Your task to perform on an android device: Open Wikipedia Image 0: 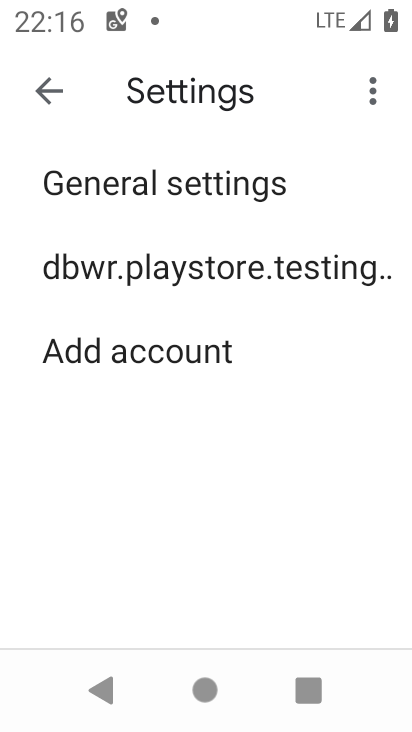
Step 0: press home button
Your task to perform on an android device: Open Wikipedia Image 1: 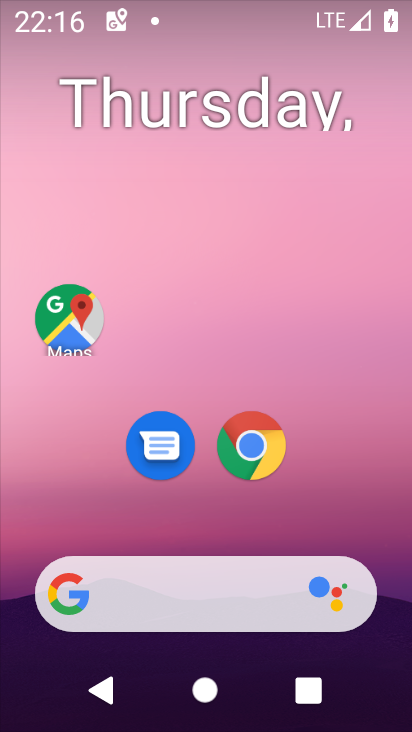
Step 1: drag from (218, 514) to (251, 204)
Your task to perform on an android device: Open Wikipedia Image 2: 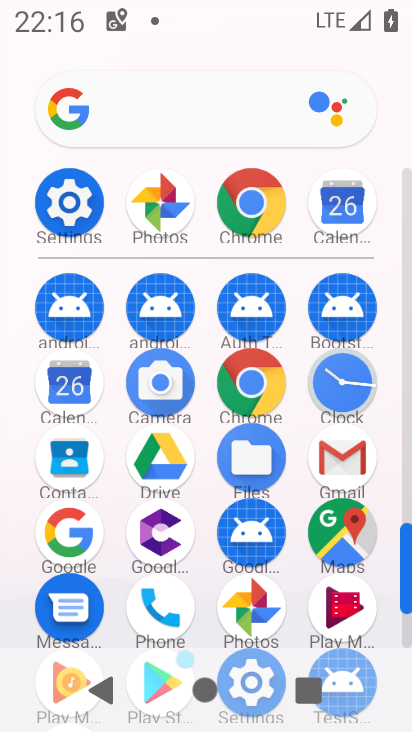
Step 2: drag from (204, 281) to (212, 172)
Your task to perform on an android device: Open Wikipedia Image 3: 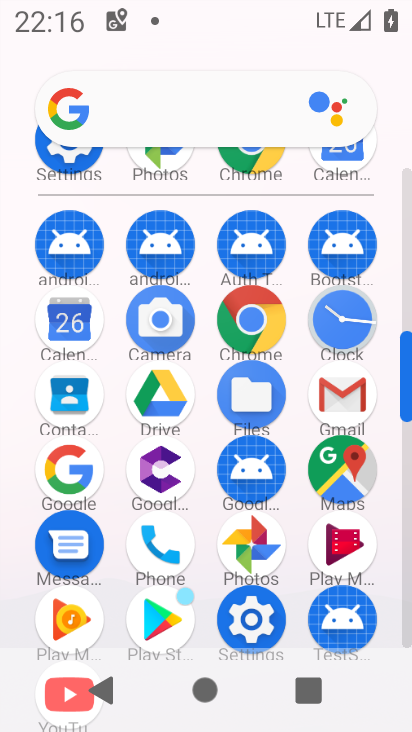
Step 3: click (247, 324)
Your task to perform on an android device: Open Wikipedia Image 4: 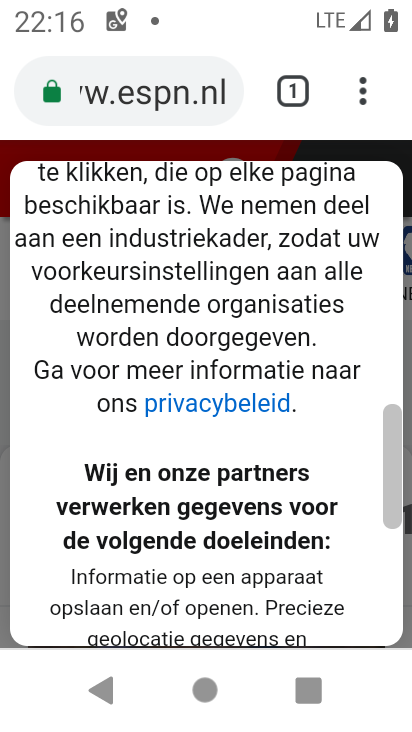
Step 4: click (287, 93)
Your task to perform on an android device: Open Wikipedia Image 5: 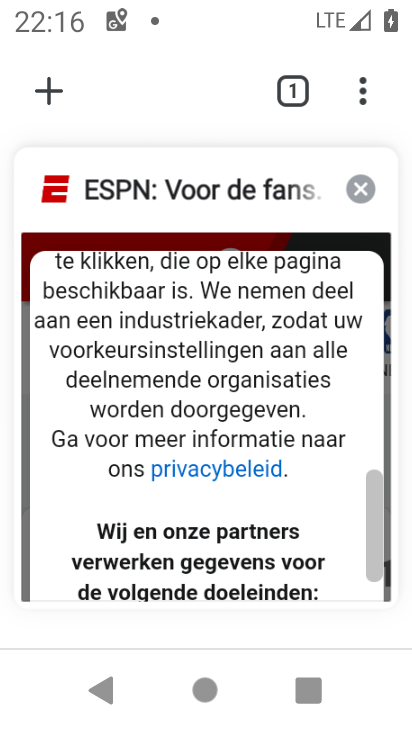
Step 5: click (46, 94)
Your task to perform on an android device: Open Wikipedia Image 6: 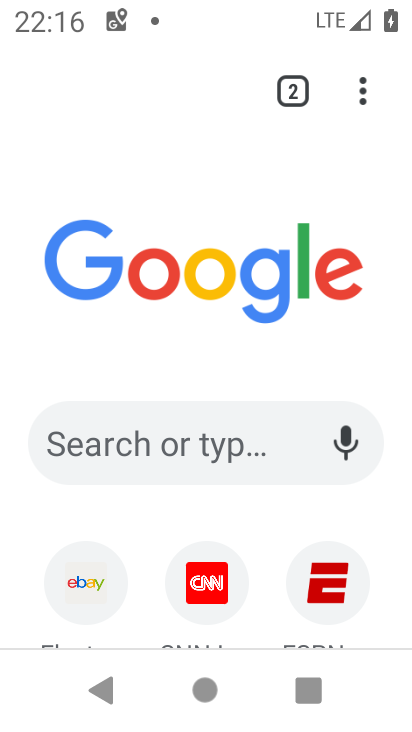
Step 6: click (193, 443)
Your task to perform on an android device: Open Wikipedia Image 7: 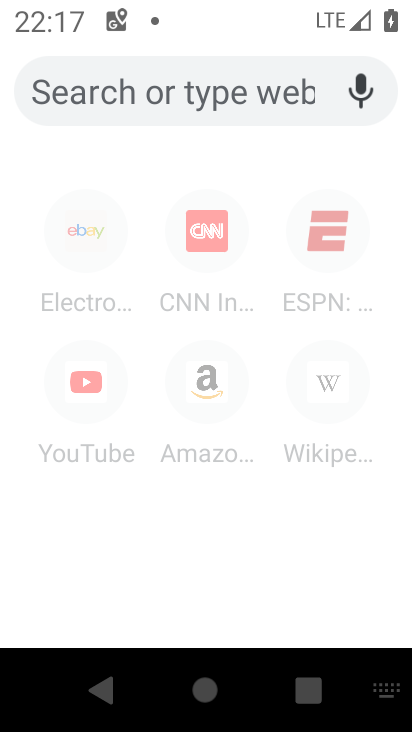
Step 7: type "Wikipedia"
Your task to perform on an android device: Open Wikipedia Image 8: 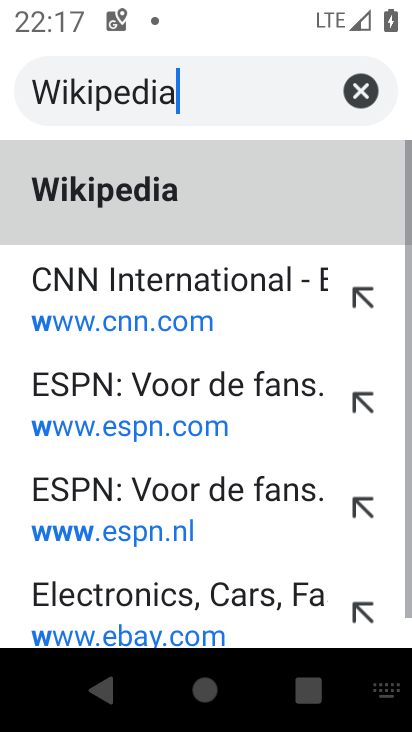
Step 8: type ""
Your task to perform on an android device: Open Wikipedia Image 9: 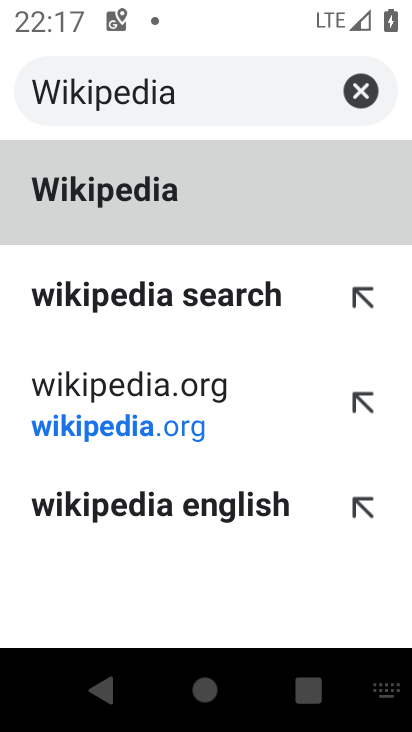
Step 9: click (189, 388)
Your task to perform on an android device: Open Wikipedia Image 10: 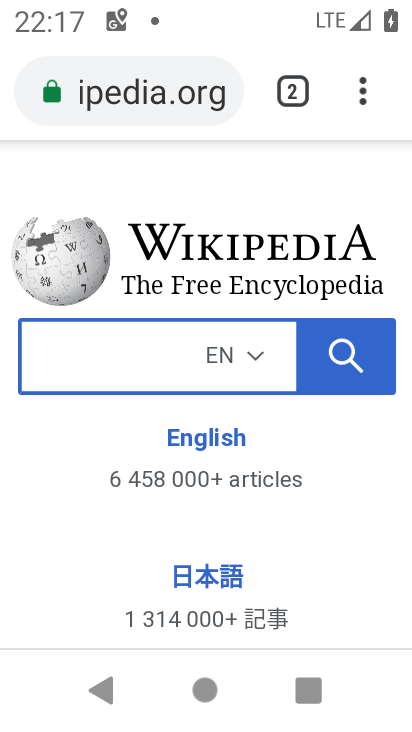
Step 10: task complete